Your task to perform on an android device: Go to location settings Image 0: 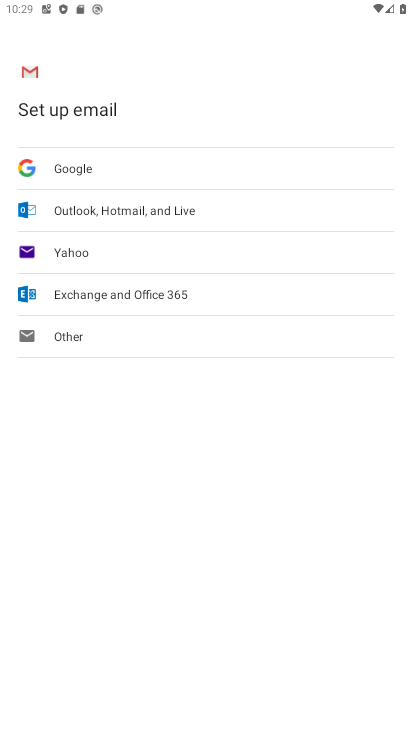
Step 0: press home button
Your task to perform on an android device: Go to location settings Image 1: 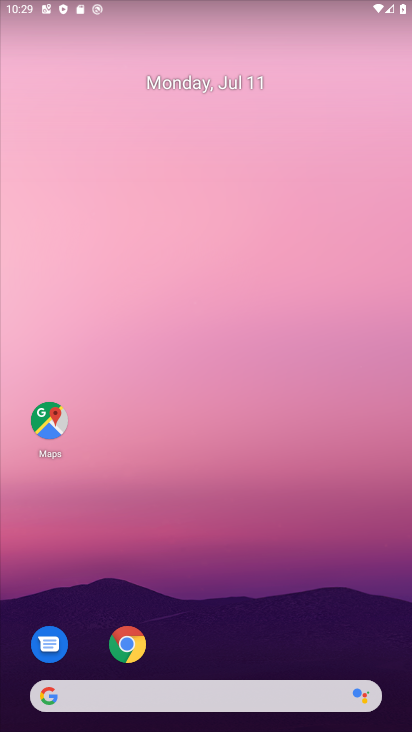
Step 1: drag from (242, 443) to (241, 72)
Your task to perform on an android device: Go to location settings Image 2: 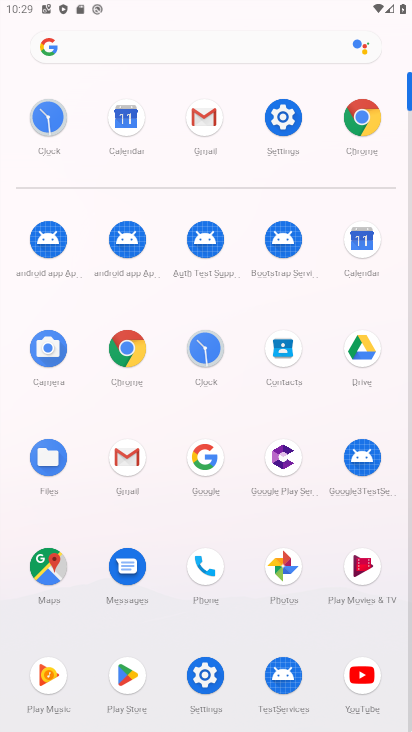
Step 2: click (291, 110)
Your task to perform on an android device: Go to location settings Image 3: 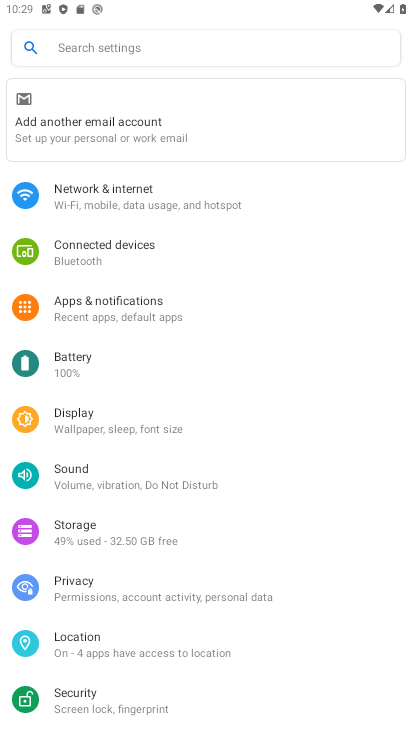
Step 3: click (115, 633)
Your task to perform on an android device: Go to location settings Image 4: 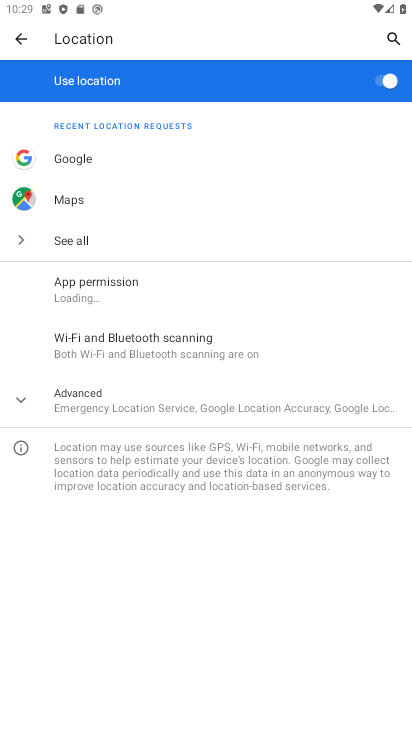
Step 4: click (18, 408)
Your task to perform on an android device: Go to location settings Image 5: 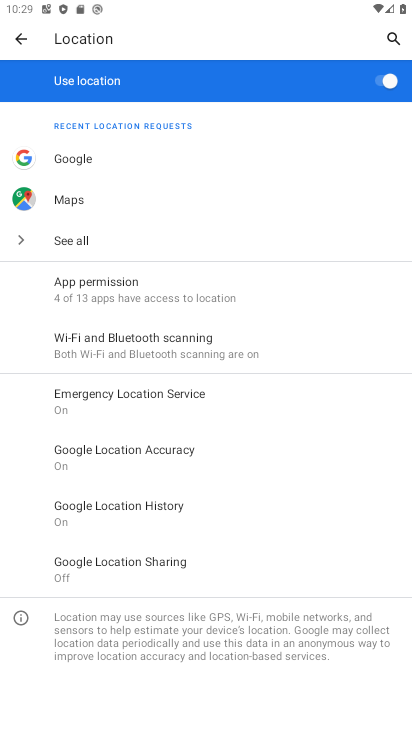
Step 5: task complete